Your task to perform on an android device: delete browsing data in the chrome app Image 0: 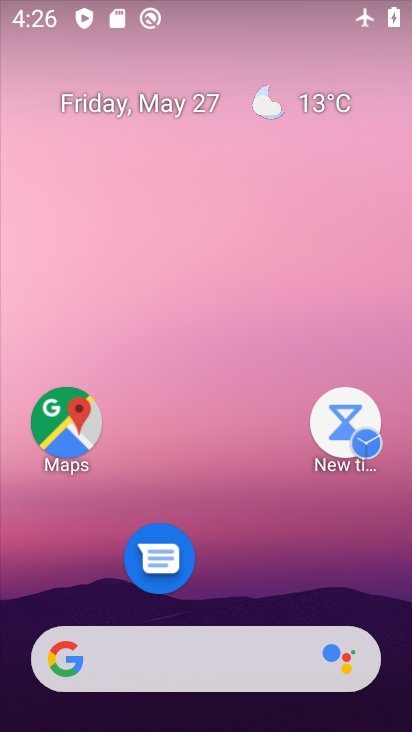
Step 0: drag from (283, 577) to (273, 142)
Your task to perform on an android device: delete browsing data in the chrome app Image 1: 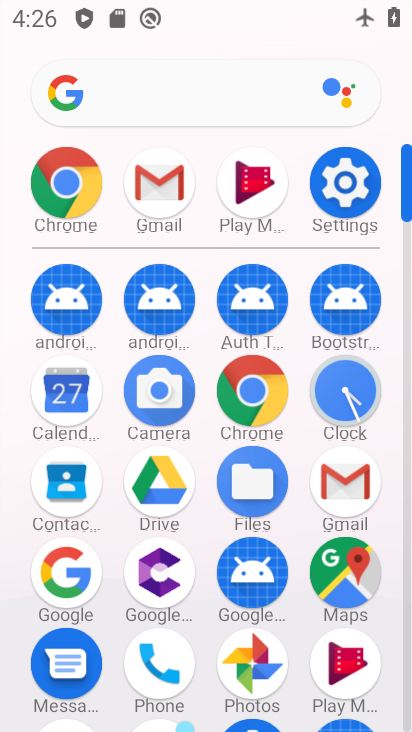
Step 1: click (68, 189)
Your task to perform on an android device: delete browsing data in the chrome app Image 2: 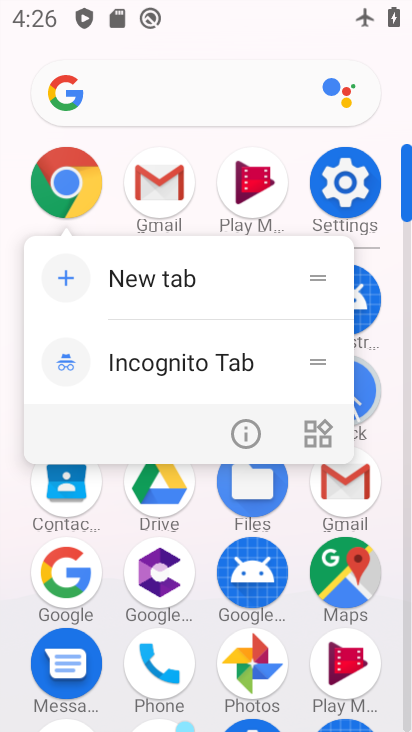
Step 2: click (71, 186)
Your task to perform on an android device: delete browsing data in the chrome app Image 3: 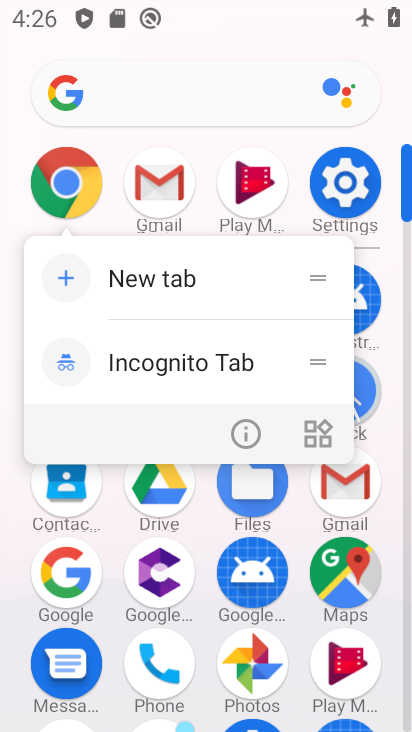
Step 3: click (73, 186)
Your task to perform on an android device: delete browsing data in the chrome app Image 4: 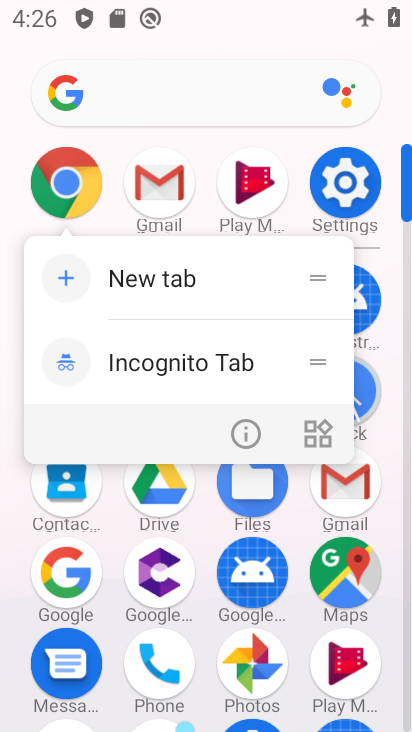
Step 4: click (73, 186)
Your task to perform on an android device: delete browsing data in the chrome app Image 5: 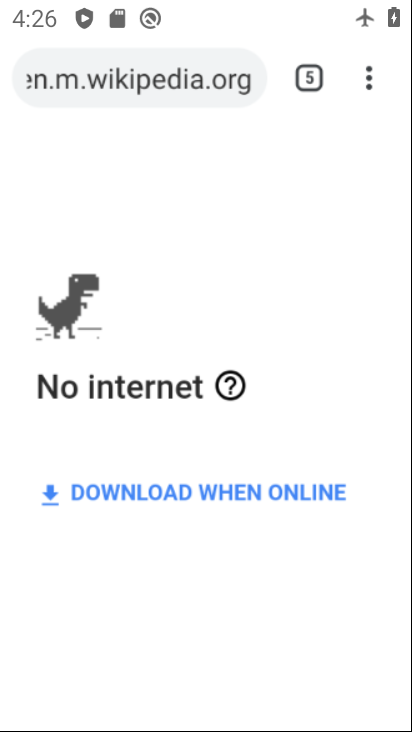
Step 5: click (73, 186)
Your task to perform on an android device: delete browsing data in the chrome app Image 6: 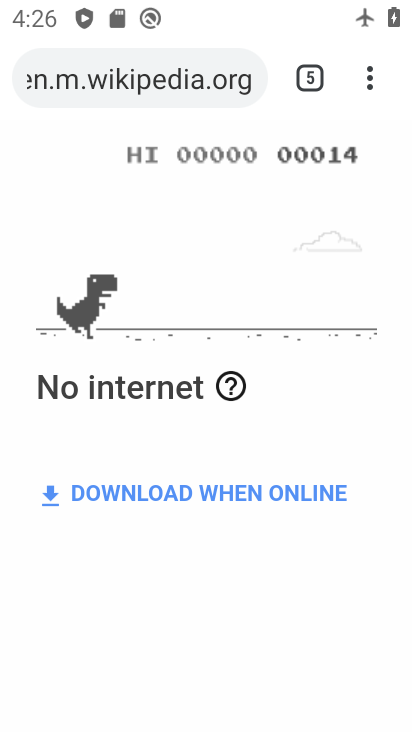
Step 6: press back button
Your task to perform on an android device: delete browsing data in the chrome app Image 7: 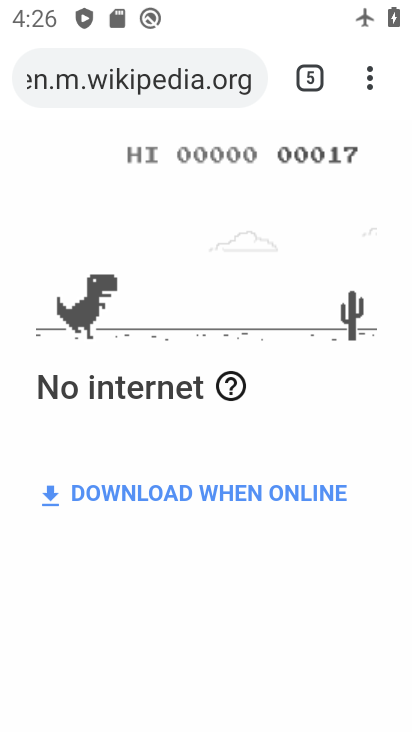
Step 7: press back button
Your task to perform on an android device: delete browsing data in the chrome app Image 8: 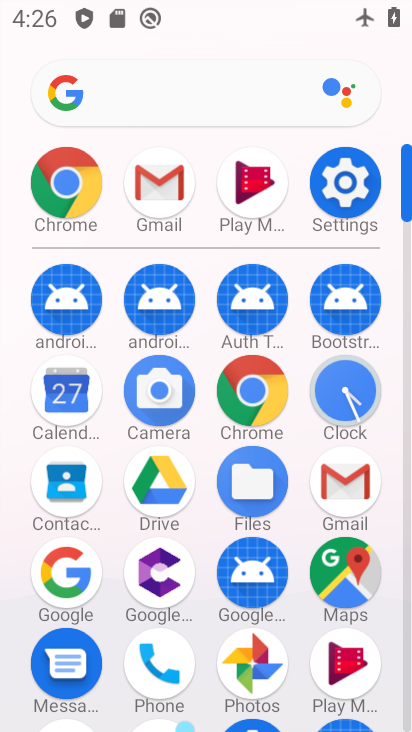
Step 8: click (363, 185)
Your task to perform on an android device: delete browsing data in the chrome app Image 9: 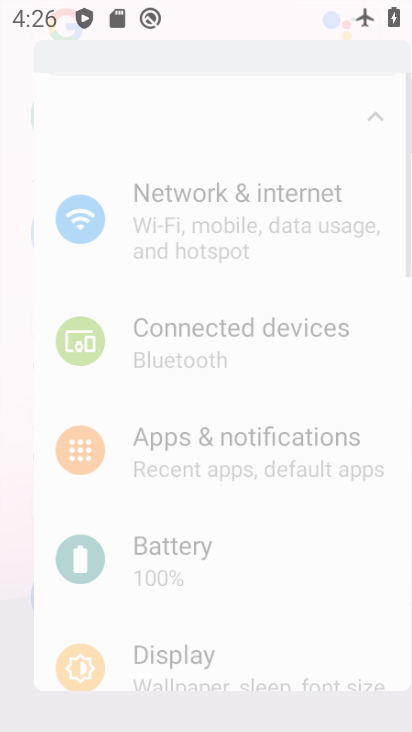
Step 9: click (359, 177)
Your task to perform on an android device: delete browsing data in the chrome app Image 10: 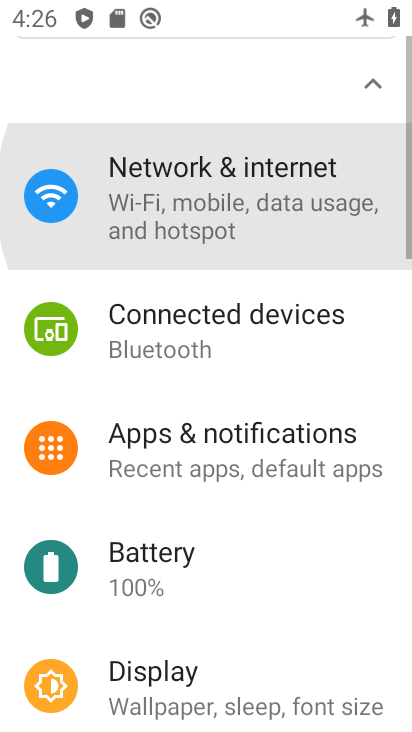
Step 10: click (359, 177)
Your task to perform on an android device: delete browsing data in the chrome app Image 11: 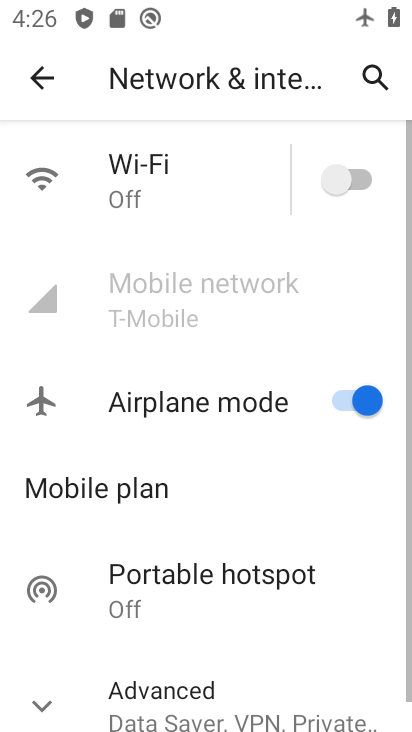
Step 11: click (218, 219)
Your task to perform on an android device: delete browsing data in the chrome app Image 12: 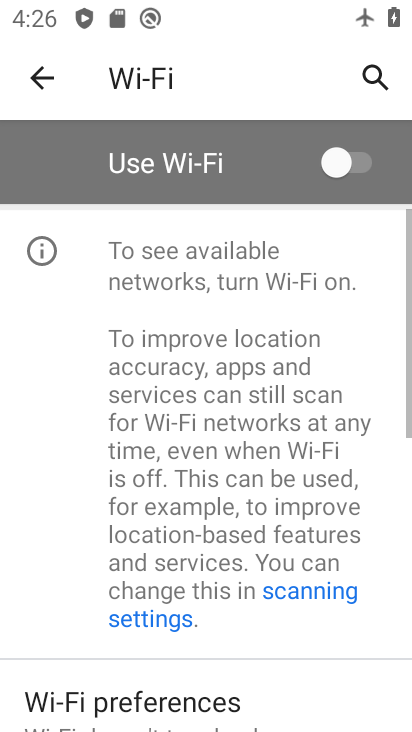
Step 12: click (347, 179)
Your task to perform on an android device: delete browsing data in the chrome app Image 13: 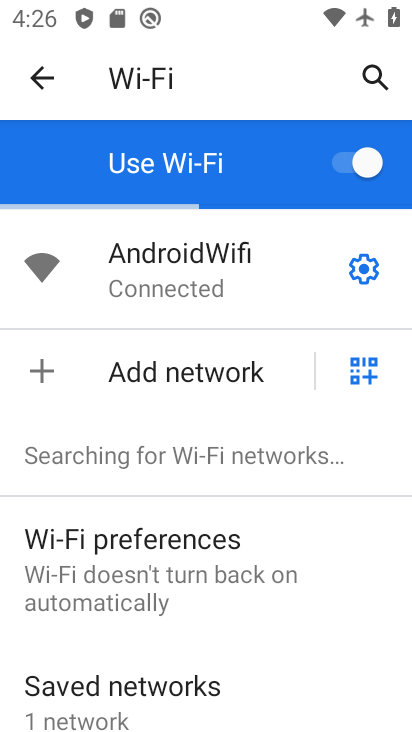
Step 13: click (46, 77)
Your task to perform on an android device: delete browsing data in the chrome app Image 14: 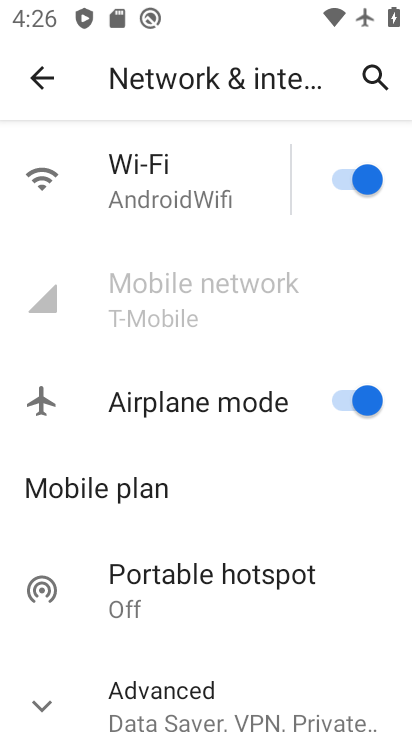
Step 14: click (370, 396)
Your task to perform on an android device: delete browsing data in the chrome app Image 15: 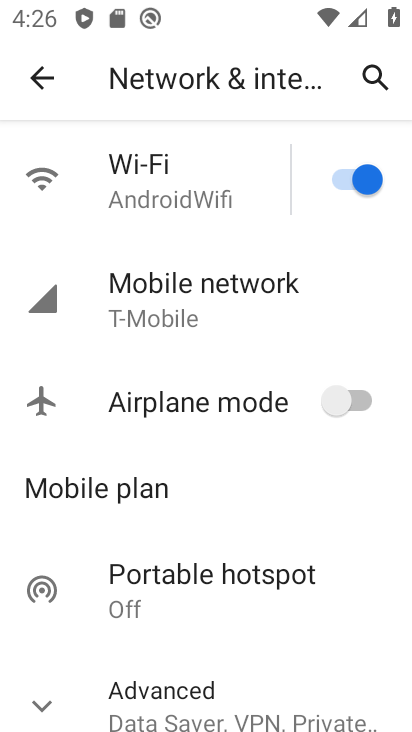
Step 15: click (36, 85)
Your task to perform on an android device: delete browsing data in the chrome app Image 16: 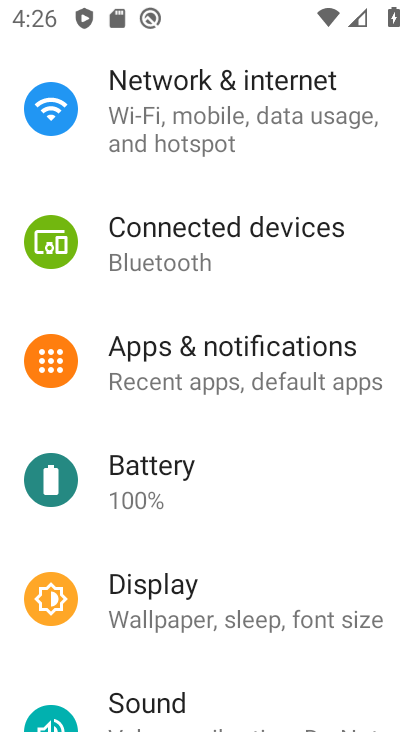
Step 16: drag from (194, 252) to (194, 481)
Your task to perform on an android device: delete browsing data in the chrome app Image 17: 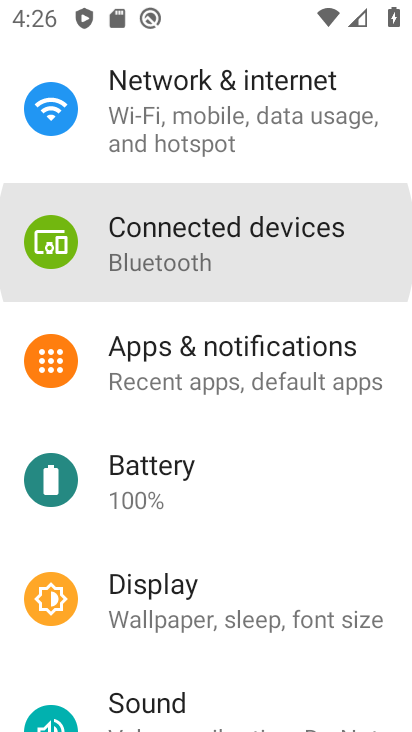
Step 17: drag from (155, 284) to (171, 398)
Your task to perform on an android device: delete browsing data in the chrome app Image 18: 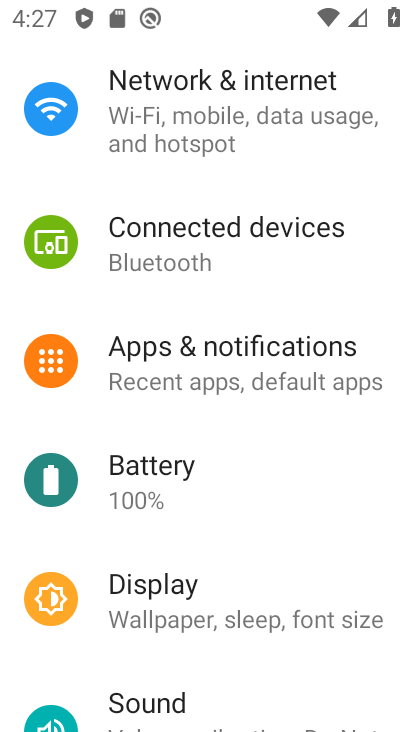
Step 18: drag from (224, 518) to (224, 81)
Your task to perform on an android device: delete browsing data in the chrome app Image 19: 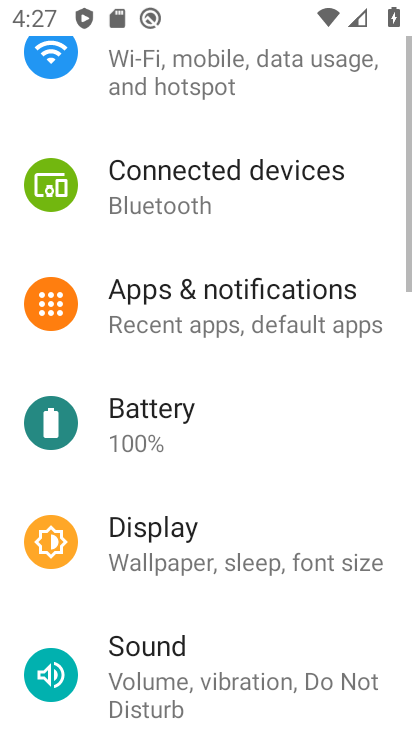
Step 19: drag from (237, 377) to (205, 133)
Your task to perform on an android device: delete browsing data in the chrome app Image 20: 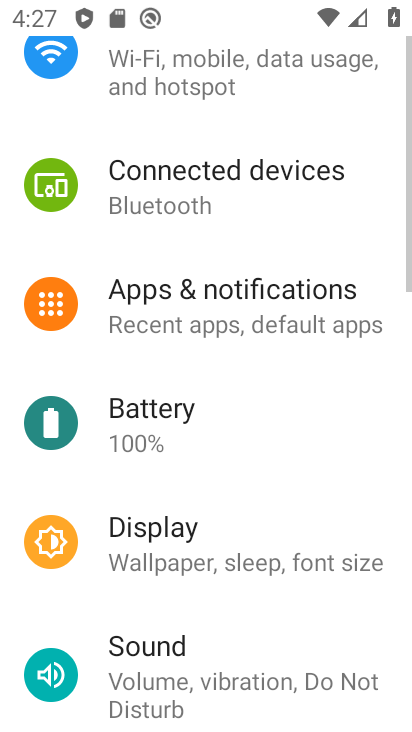
Step 20: drag from (174, 200) to (168, 143)
Your task to perform on an android device: delete browsing data in the chrome app Image 21: 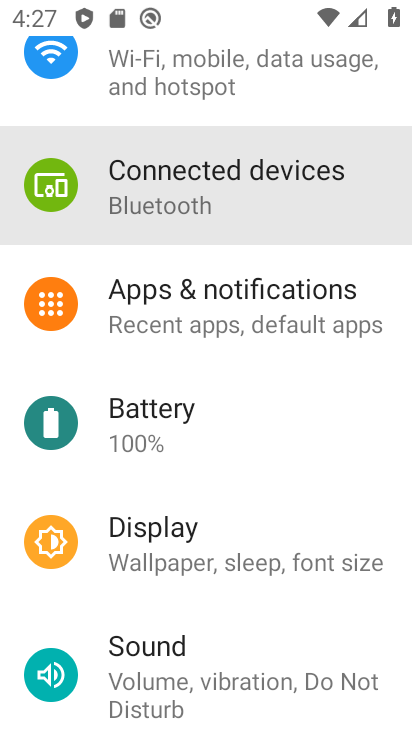
Step 21: drag from (169, 373) to (199, 111)
Your task to perform on an android device: delete browsing data in the chrome app Image 22: 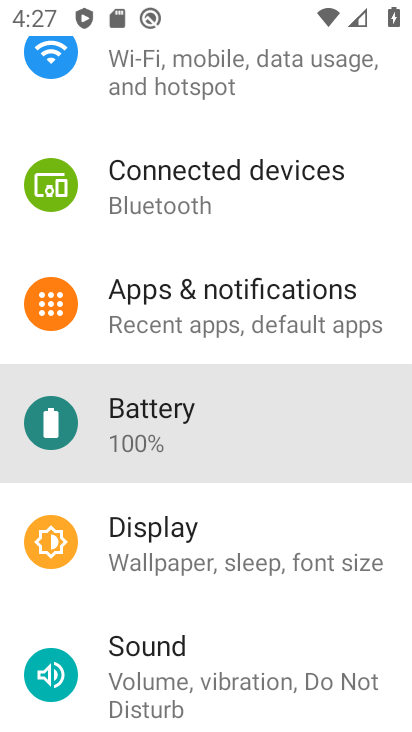
Step 22: drag from (184, 485) to (182, 213)
Your task to perform on an android device: delete browsing data in the chrome app Image 23: 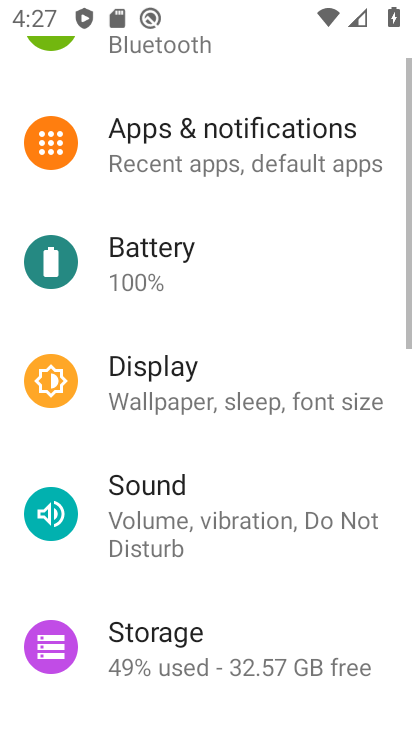
Step 23: drag from (173, 538) to (175, 153)
Your task to perform on an android device: delete browsing data in the chrome app Image 24: 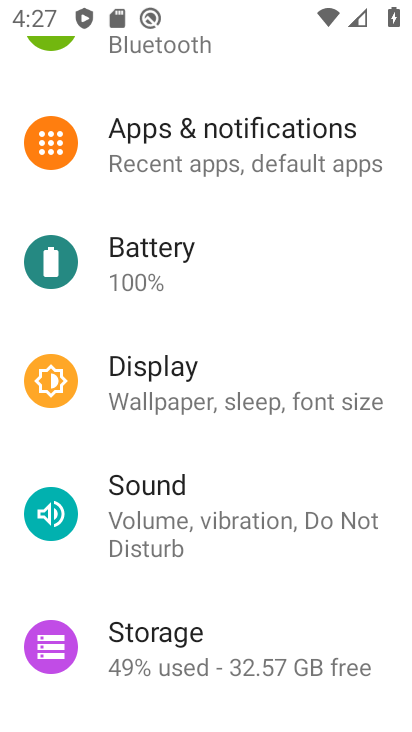
Step 24: press back button
Your task to perform on an android device: delete browsing data in the chrome app Image 25: 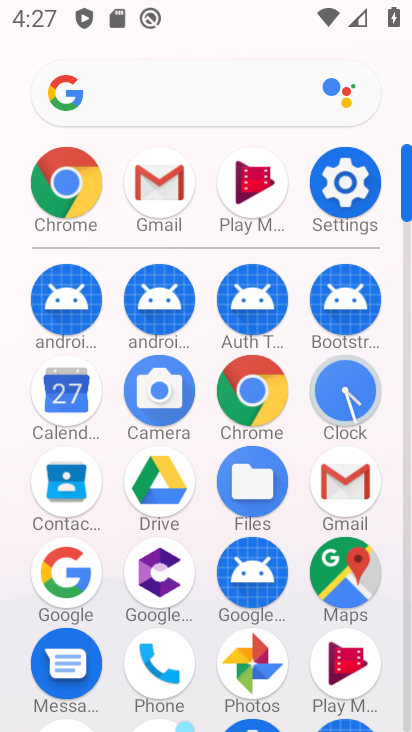
Step 25: click (65, 169)
Your task to perform on an android device: delete browsing data in the chrome app Image 26: 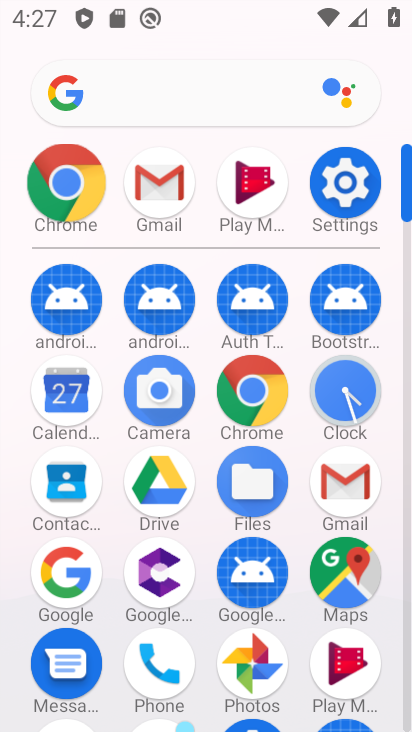
Step 26: click (67, 170)
Your task to perform on an android device: delete browsing data in the chrome app Image 27: 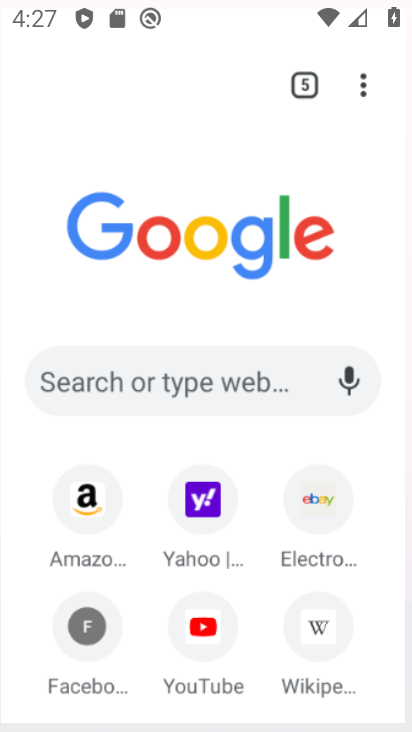
Step 27: click (68, 172)
Your task to perform on an android device: delete browsing data in the chrome app Image 28: 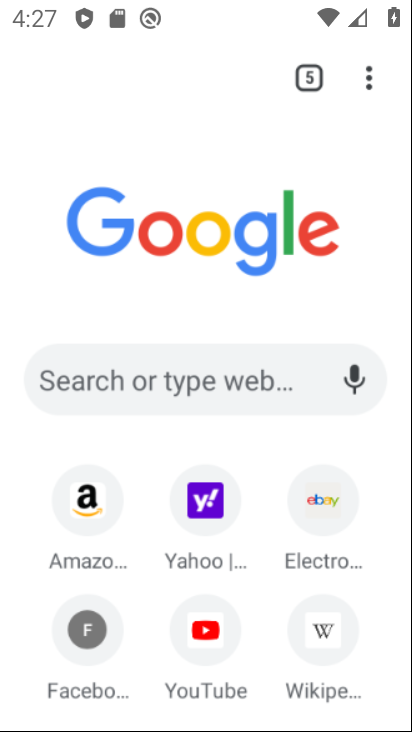
Step 28: click (68, 172)
Your task to perform on an android device: delete browsing data in the chrome app Image 29: 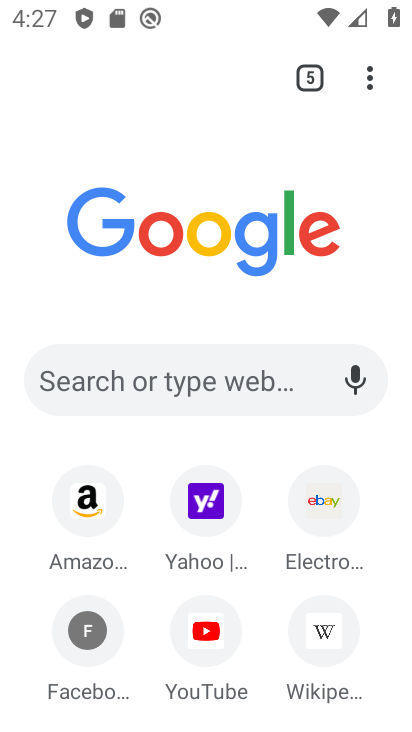
Step 29: drag from (366, 81) to (82, 444)
Your task to perform on an android device: delete browsing data in the chrome app Image 30: 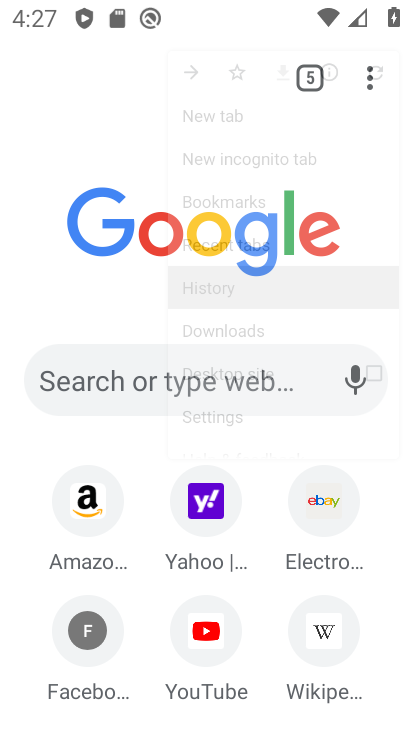
Step 30: click (92, 447)
Your task to perform on an android device: delete browsing data in the chrome app Image 31: 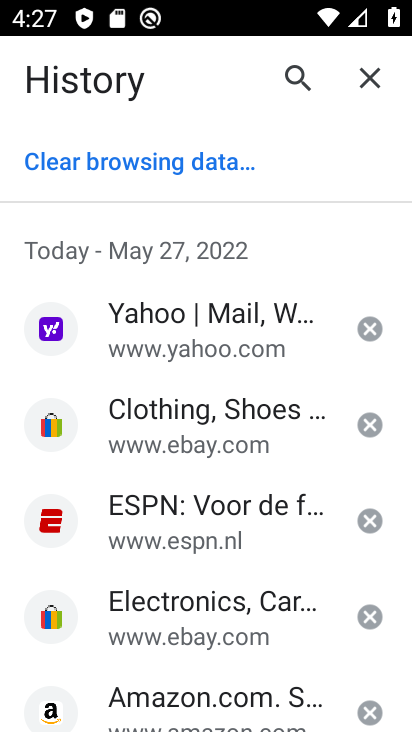
Step 31: click (165, 156)
Your task to perform on an android device: delete browsing data in the chrome app Image 32: 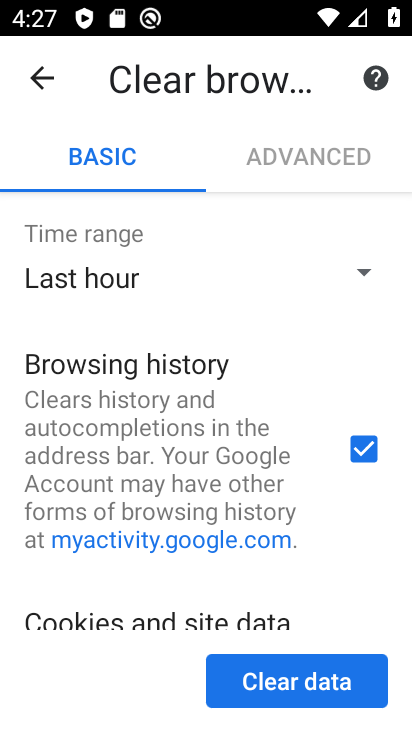
Step 32: click (294, 661)
Your task to perform on an android device: delete browsing data in the chrome app Image 33: 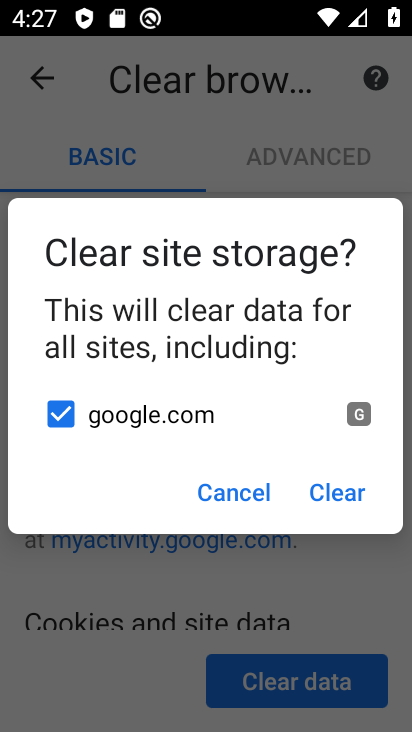
Step 33: click (345, 484)
Your task to perform on an android device: delete browsing data in the chrome app Image 34: 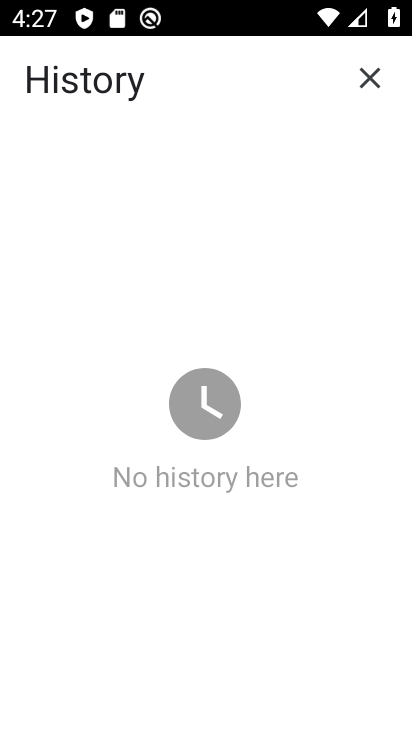
Step 34: task complete